Your task to perform on an android device: Go to Maps Image 0: 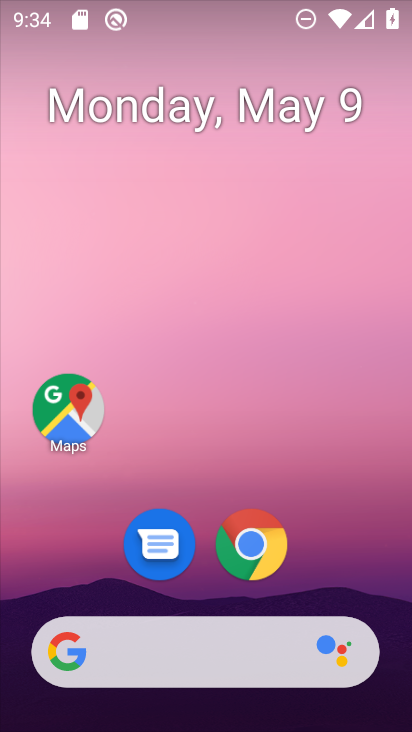
Step 0: click (60, 409)
Your task to perform on an android device: Go to Maps Image 1: 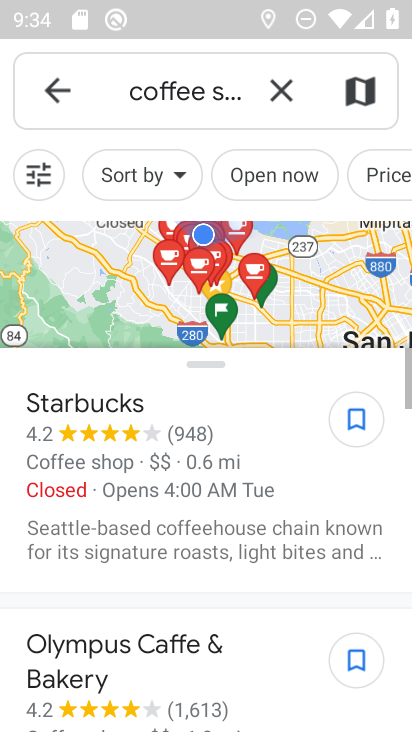
Step 1: task complete